Your task to perform on an android device: Go to Wikipedia Image 0: 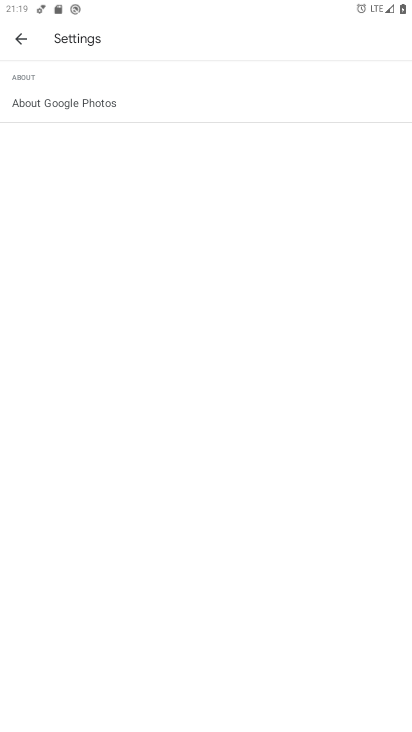
Step 0: press home button
Your task to perform on an android device: Go to Wikipedia Image 1: 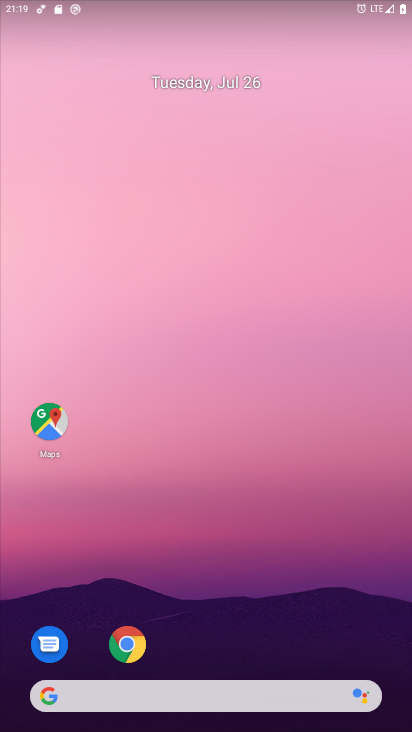
Step 1: click (127, 659)
Your task to perform on an android device: Go to Wikipedia Image 2: 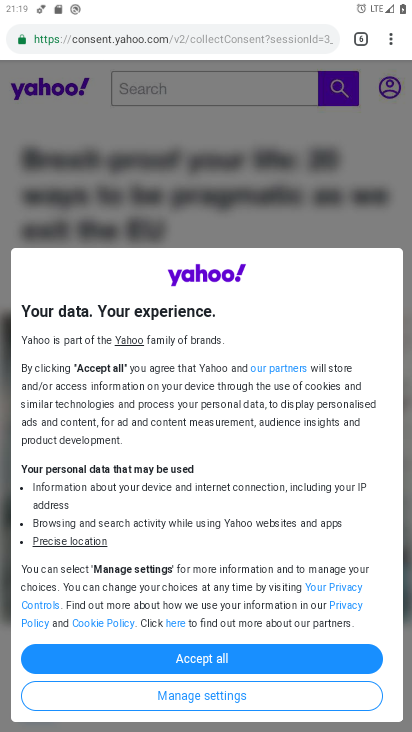
Step 2: click (395, 43)
Your task to perform on an android device: Go to Wikipedia Image 3: 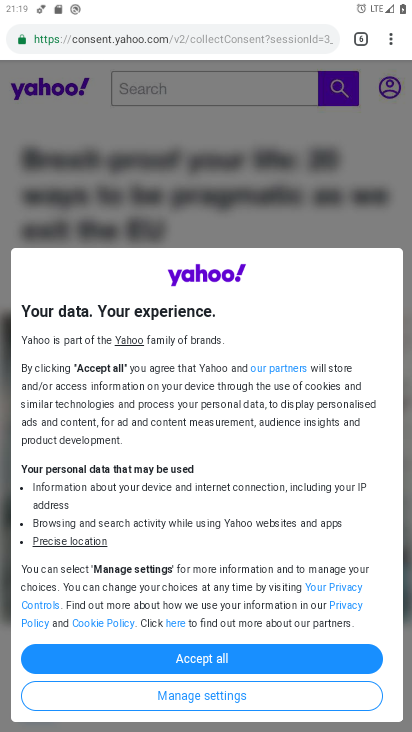
Step 3: click (395, 43)
Your task to perform on an android device: Go to Wikipedia Image 4: 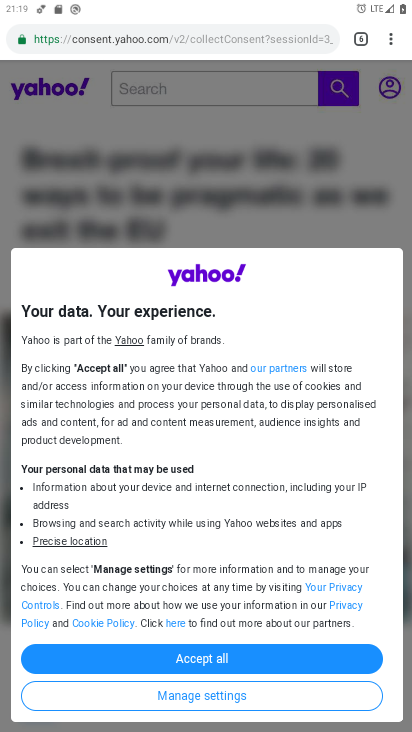
Step 4: click (394, 37)
Your task to perform on an android device: Go to Wikipedia Image 5: 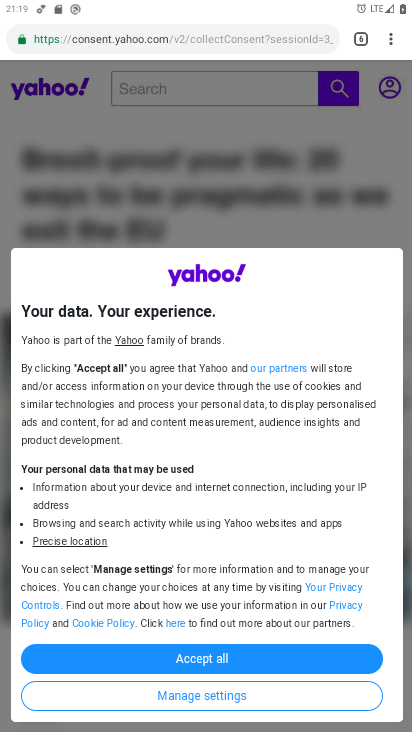
Step 5: click (394, 37)
Your task to perform on an android device: Go to Wikipedia Image 6: 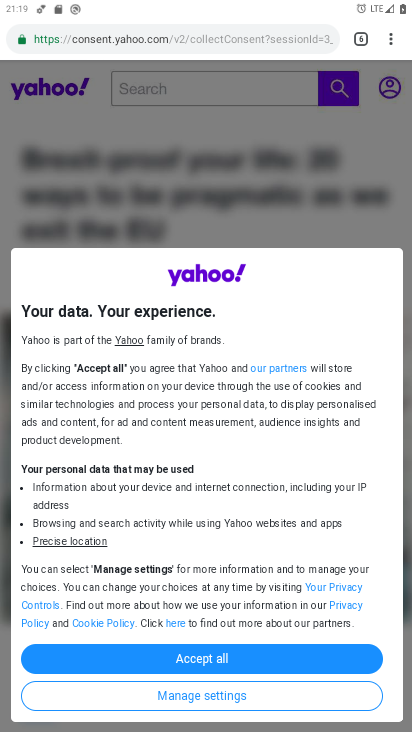
Step 6: click (394, 37)
Your task to perform on an android device: Go to Wikipedia Image 7: 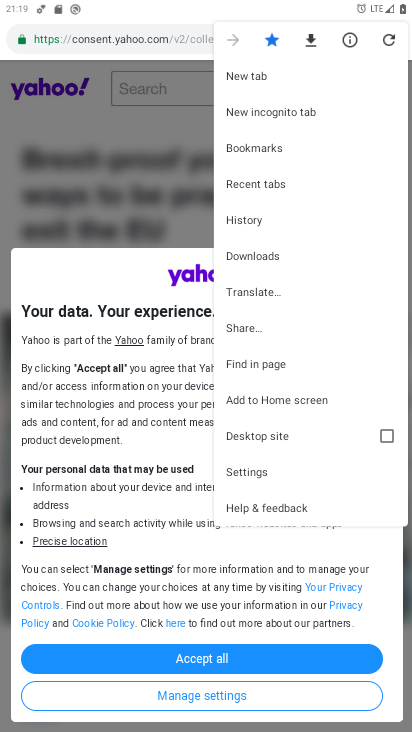
Step 7: click (247, 73)
Your task to perform on an android device: Go to Wikipedia Image 8: 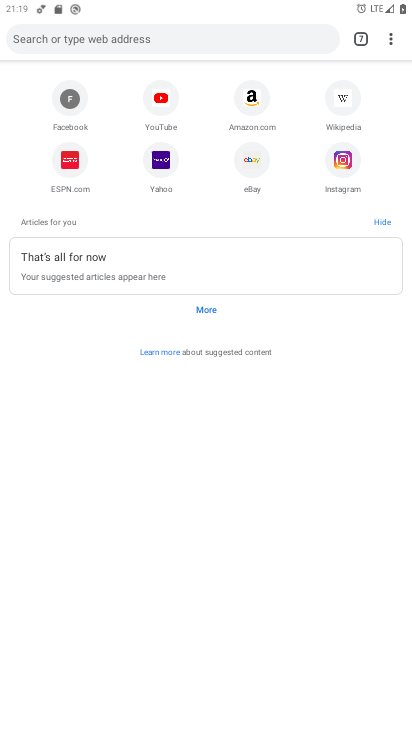
Step 8: click (346, 105)
Your task to perform on an android device: Go to Wikipedia Image 9: 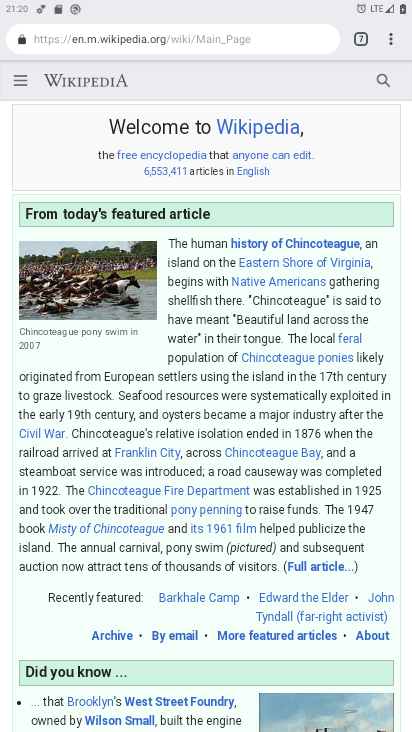
Step 9: task complete